Your task to perform on an android device: turn off sleep mode Image 0: 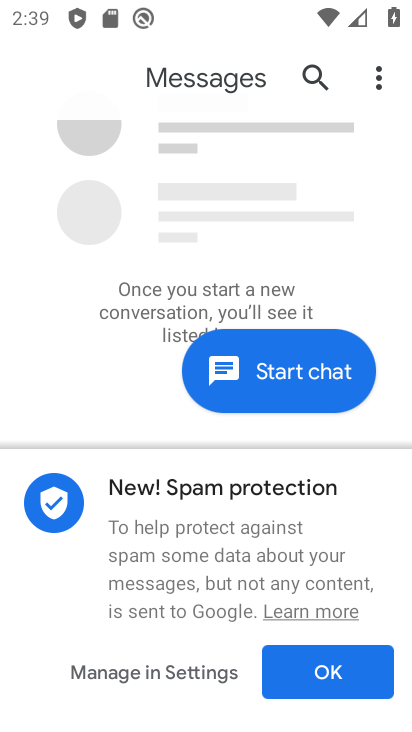
Step 0: press home button
Your task to perform on an android device: turn off sleep mode Image 1: 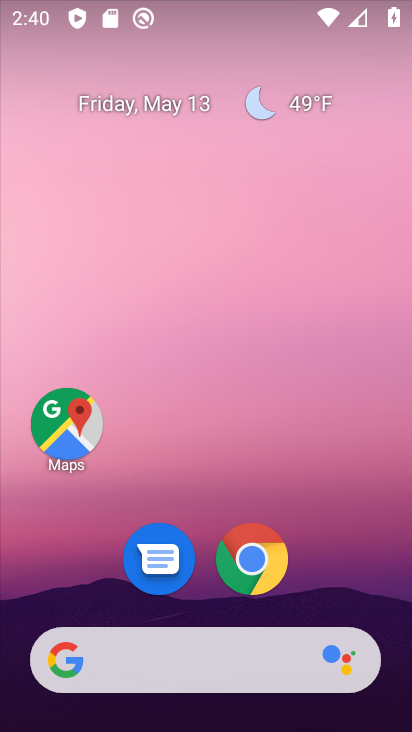
Step 1: drag from (386, 632) to (358, 109)
Your task to perform on an android device: turn off sleep mode Image 2: 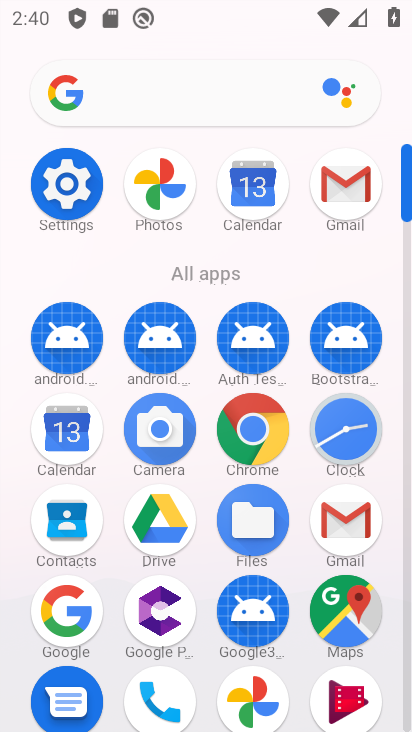
Step 2: click (405, 709)
Your task to perform on an android device: turn off sleep mode Image 3: 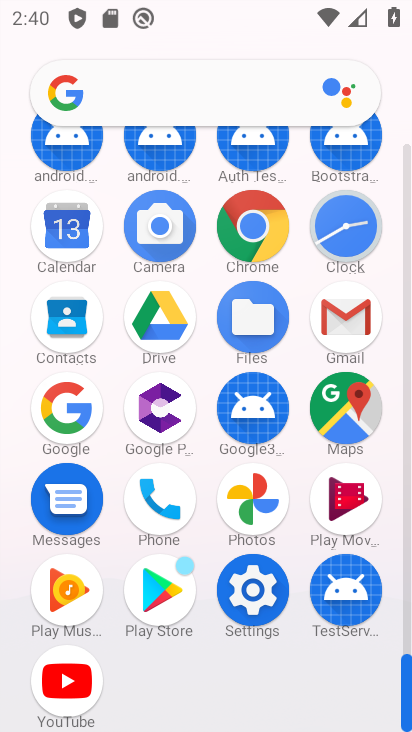
Step 3: click (253, 594)
Your task to perform on an android device: turn off sleep mode Image 4: 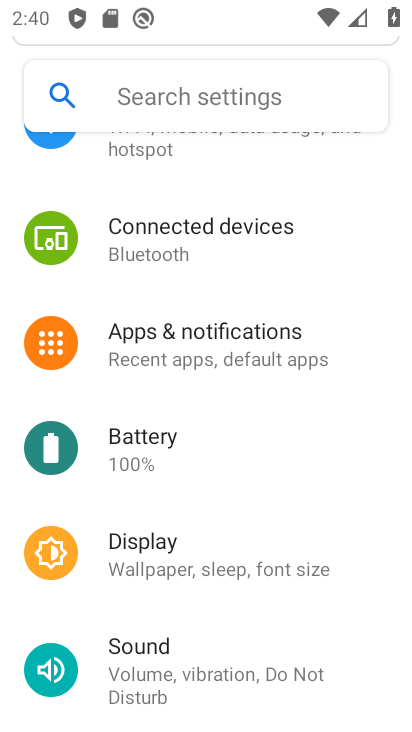
Step 4: click (152, 549)
Your task to perform on an android device: turn off sleep mode Image 5: 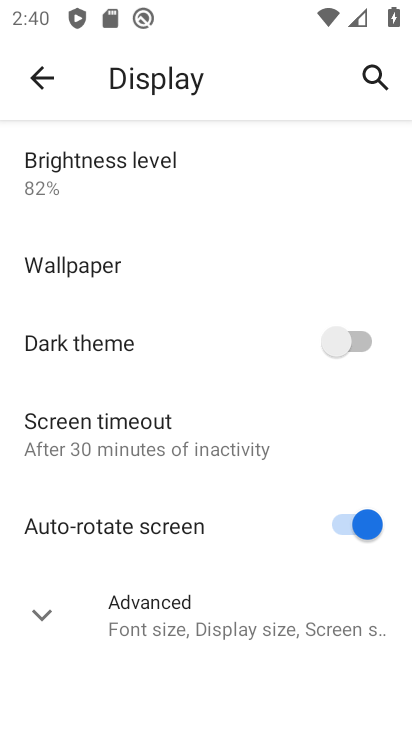
Step 5: click (36, 612)
Your task to perform on an android device: turn off sleep mode Image 6: 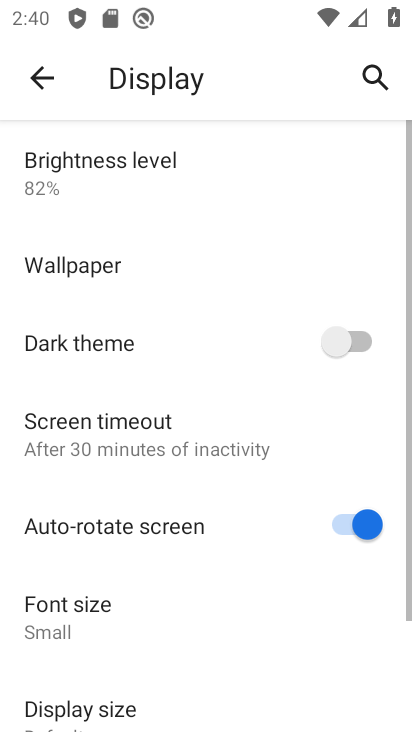
Step 6: task complete